Your task to perform on an android device: turn notification dots on Image 0: 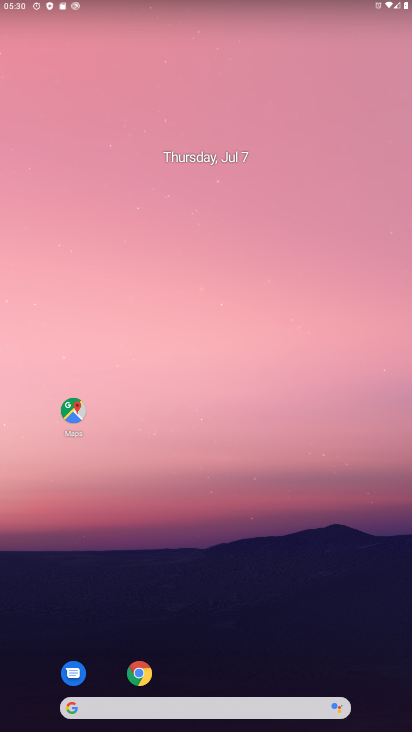
Step 0: drag from (285, 695) to (275, 64)
Your task to perform on an android device: turn notification dots on Image 1: 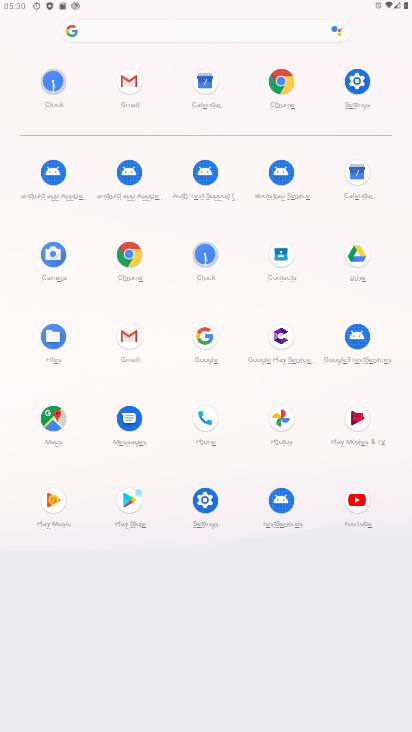
Step 1: click (354, 84)
Your task to perform on an android device: turn notification dots on Image 2: 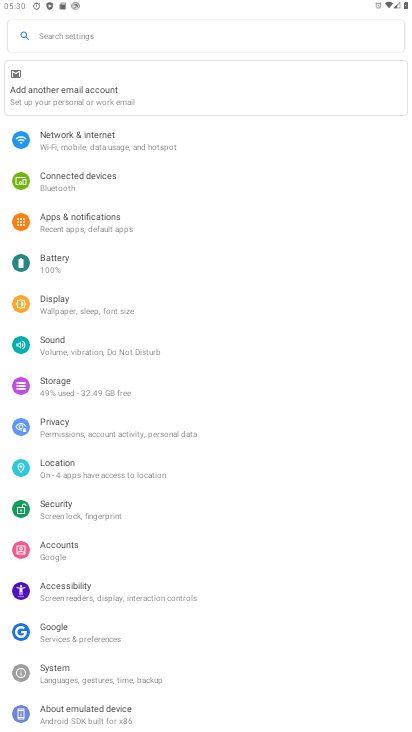
Step 2: click (137, 220)
Your task to perform on an android device: turn notification dots on Image 3: 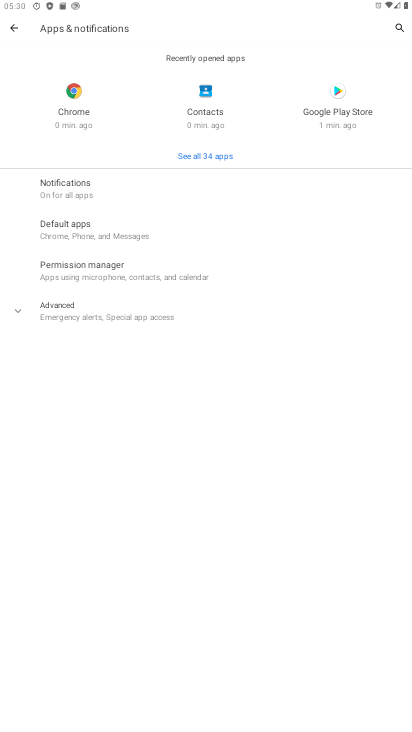
Step 3: click (92, 190)
Your task to perform on an android device: turn notification dots on Image 4: 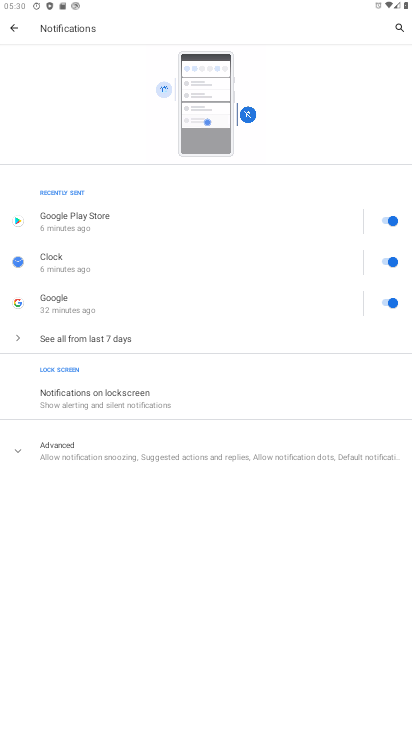
Step 4: click (113, 454)
Your task to perform on an android device: turn notification dots on Image 5: 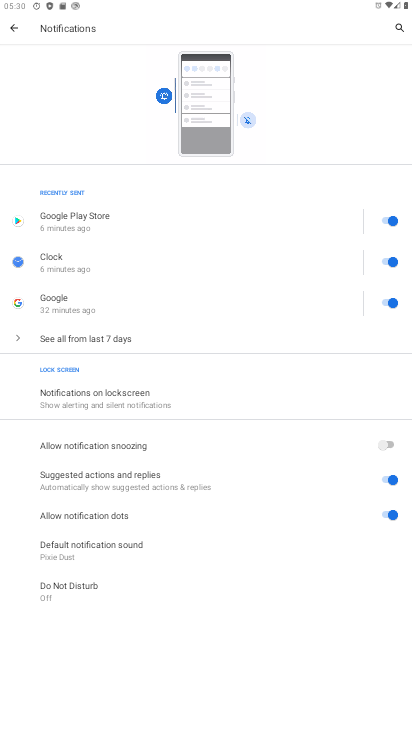
Step 5: click (108, 518)
Your task to perform on an android device: turn notification dots on Image 6: 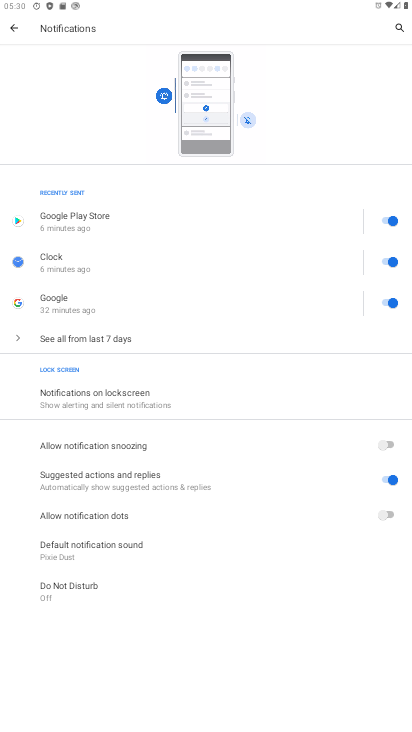
Step 6: click (118, 516)
Your task to perform on an android device: turn notification dots on Image 7: 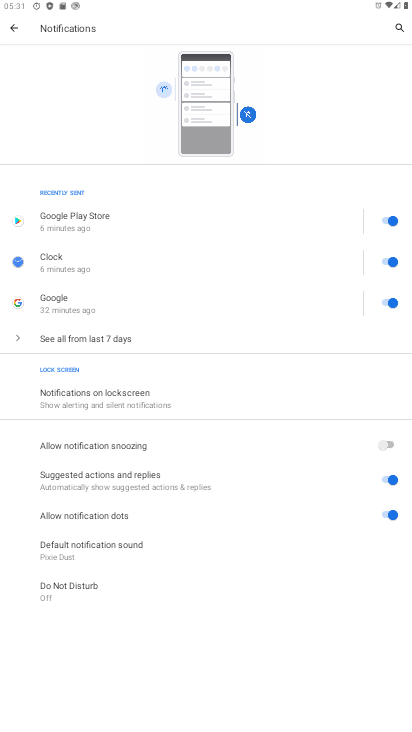
Step 7: task complete